Your task to perform on an android device: Open the calendar and show me this week's events Image 0: 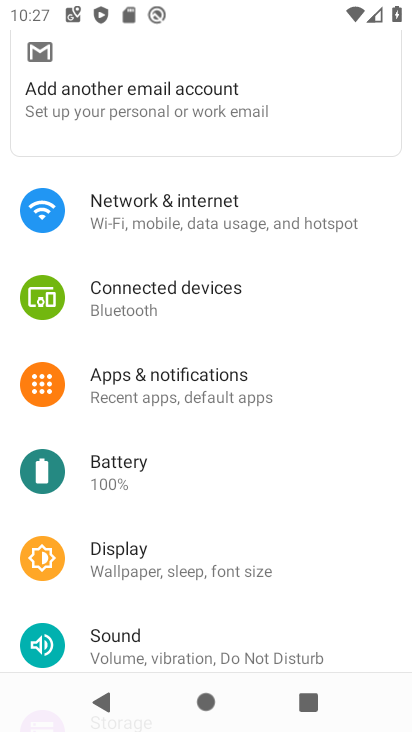
Step 0: press home button
Your task to perform on an android device: Open the calendar and show me this week's events Image 1: 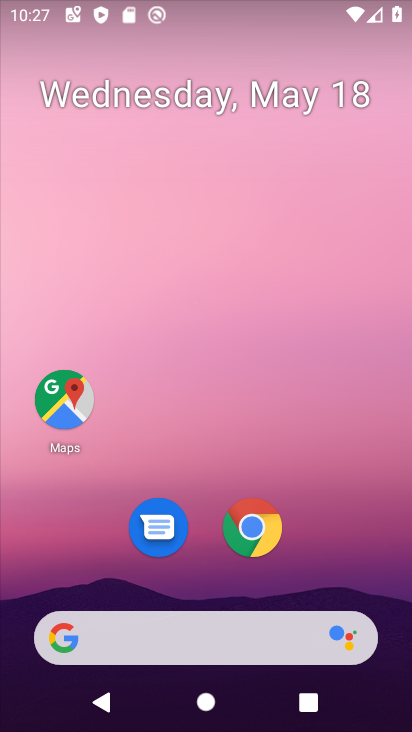
Step 1: drag from (347, 553) to (309, 244)
Your task to perform on an android device: Open the calendar and show me this week's events Image 2: 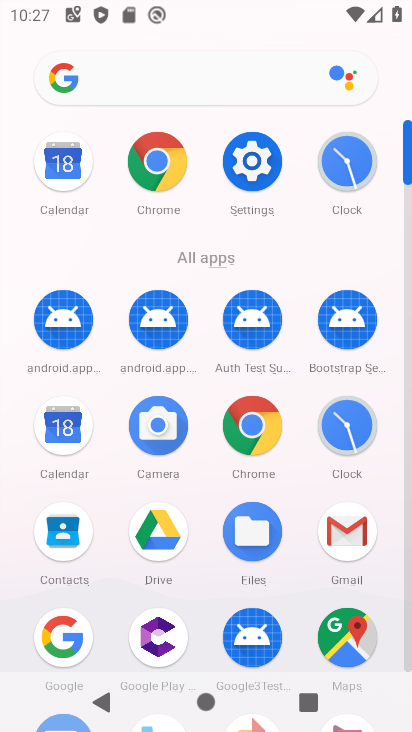
Step 2: click (55, 415)
Your task to perform on an android device: Open the calendar and show me this week's events Image 3: 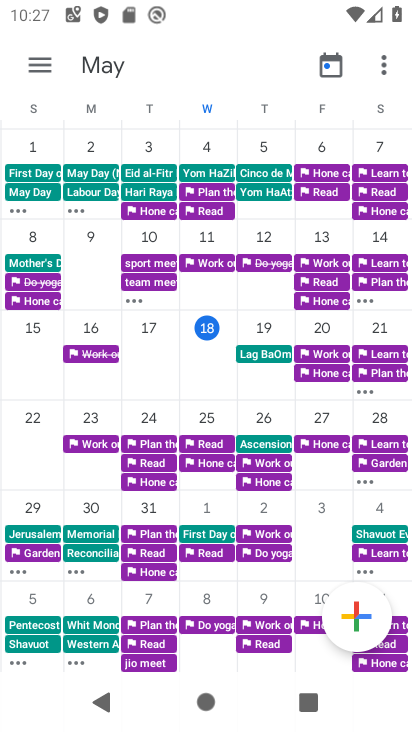
Step 3: task complete